Your task to perform on an android device: What's the weather? Image 0: 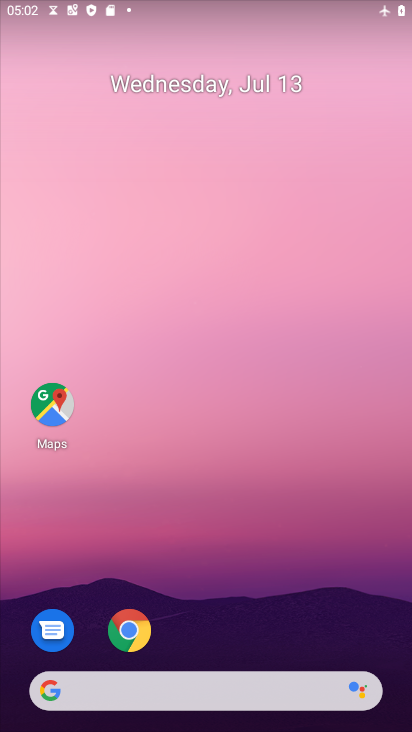
Step 0: drag from (198, 697) to (226, 224)
Your task to perform on an android device: What's the weather? Image 1: 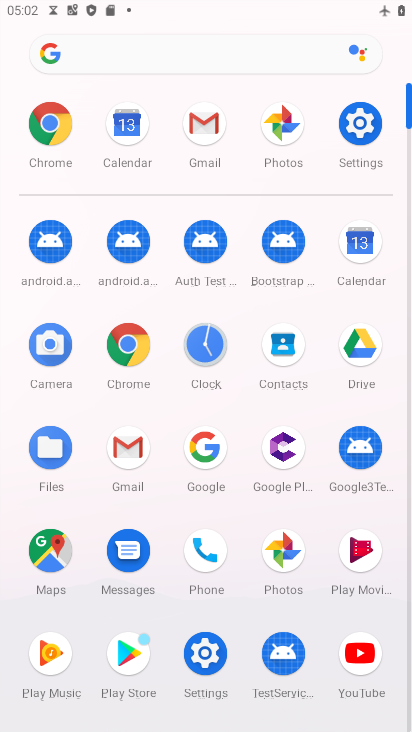
Step 1: click (132, 343)
Your task to perform on an android device: What's the weather? Image 2: 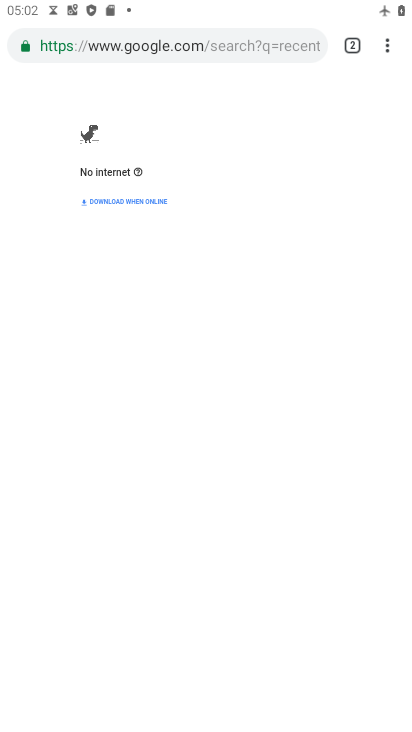
Step 2: click (209, 46)
Your task to perform on an android device: What's the weather? Image 3: 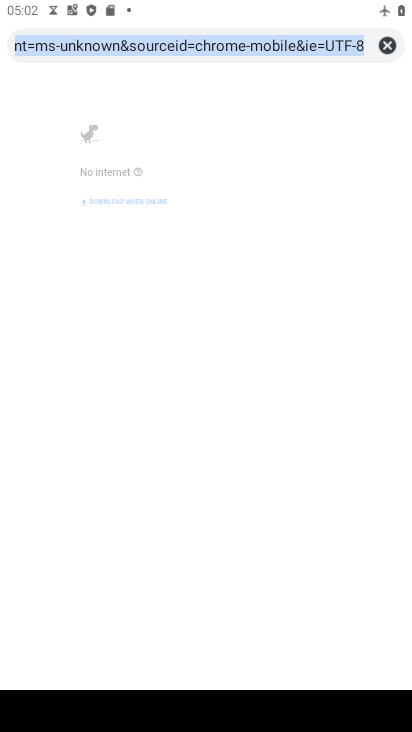
Step 3: task complete